Your task to perform on an android device: change the upload size in google photos Image 0: 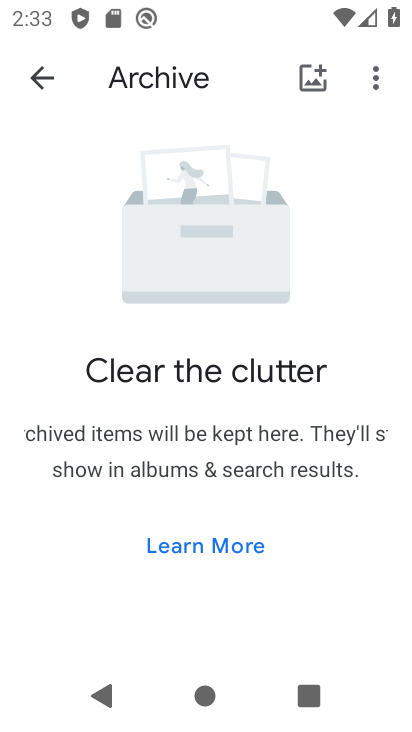
Step 0: press back button
Your task to perform on an android device: change the upload size in google photos Image 1: 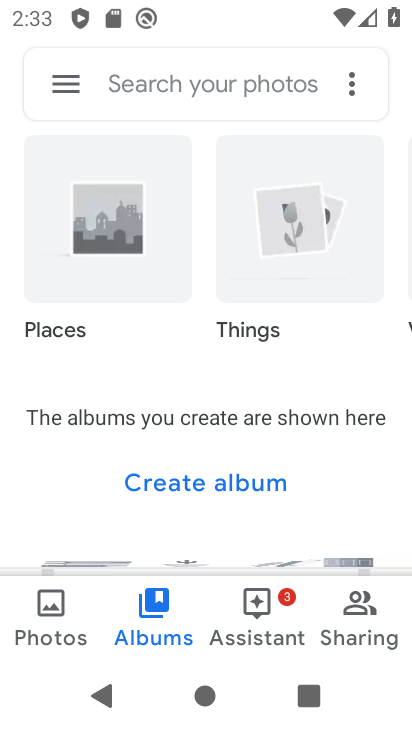
Step 1: press back button
Your task to perform on an android device: change the upload size in google photos Image 2: 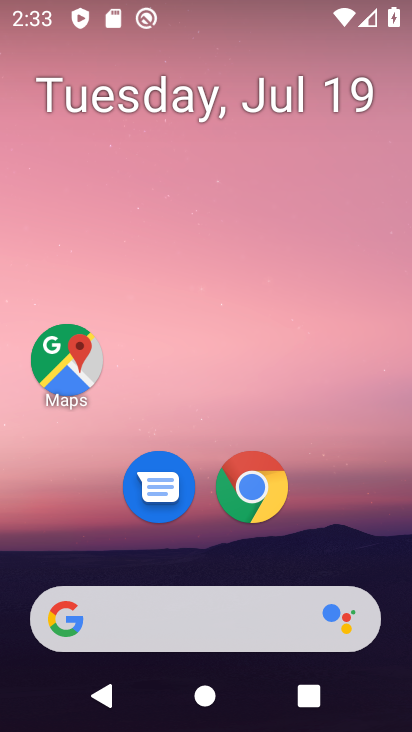
Step 2: drag from (158, 559) to (206, 31)
Your task to perform on an android device: change the upload size in google photos Image 3: 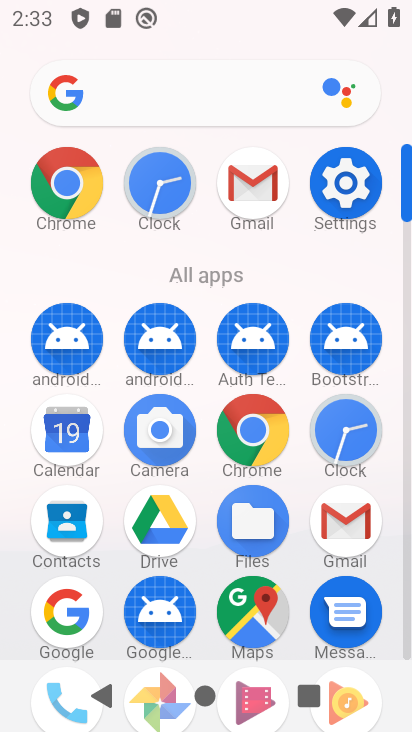
Step 3: drag from (169, 597) to (331, 100)
Your task to perform on an android device: change the upload size in google photos Image 4: 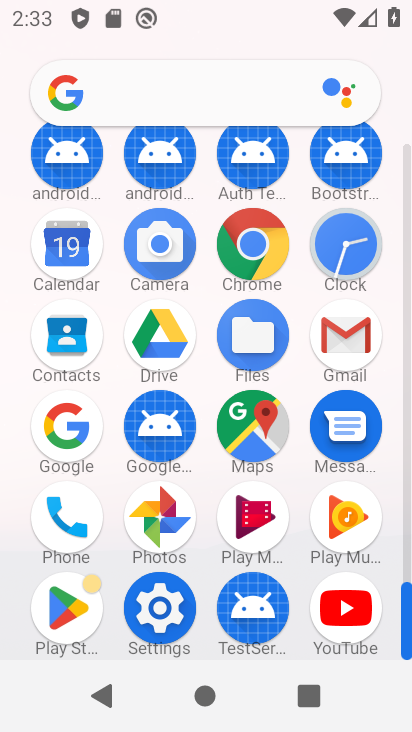
Step 4: click (142, 549)
Your task to perform on an android device: change the upload size in google photos Image 5: 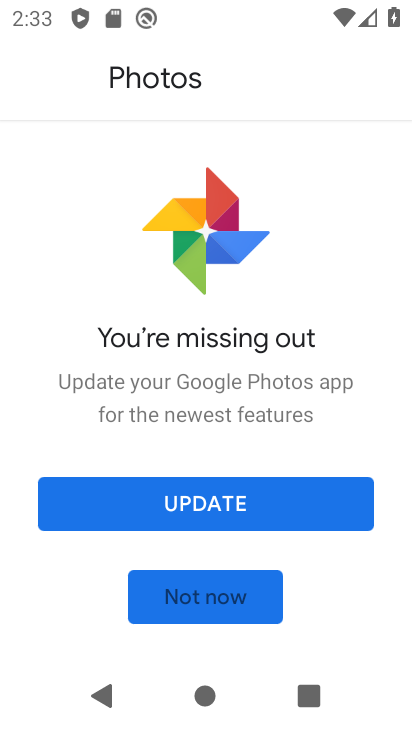
Step 5: click (186, 600)
Your task to perform on an android device: change the upload size in google photos Image 6: 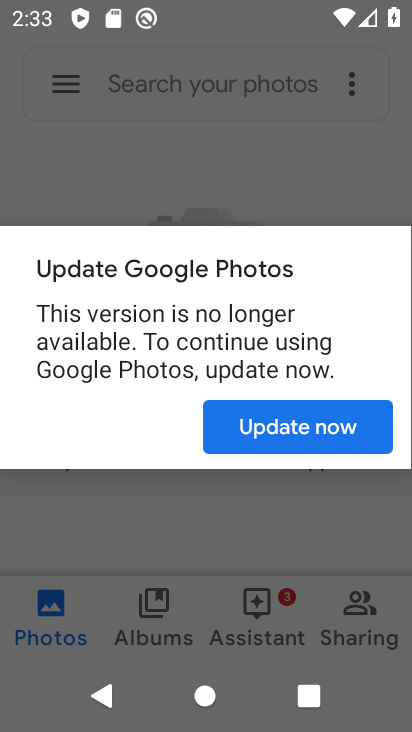
Step 6: click (250, 423)
Your task to perform on an android device: change the upload size in google photos Image 7: 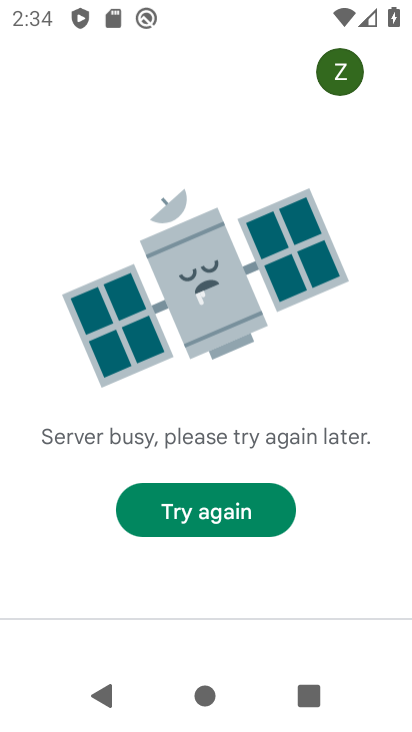
Step 7: click (215, 516)
Your task to perform on an android device: change the upload size in google photos Image 8: 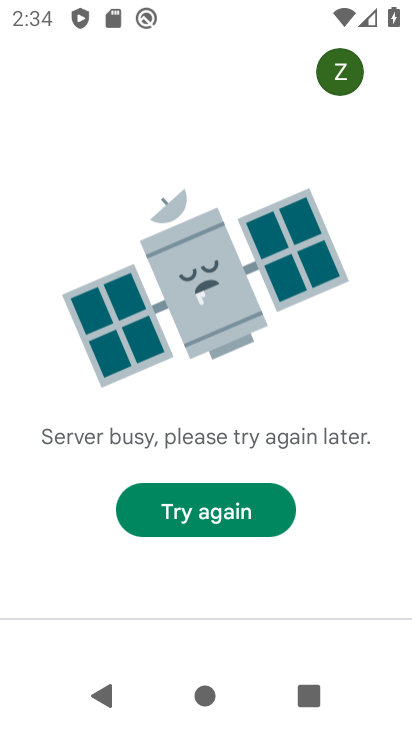
Step 8: press back button
Your task to perform on an android device: change the upload size in google photos Image 9: 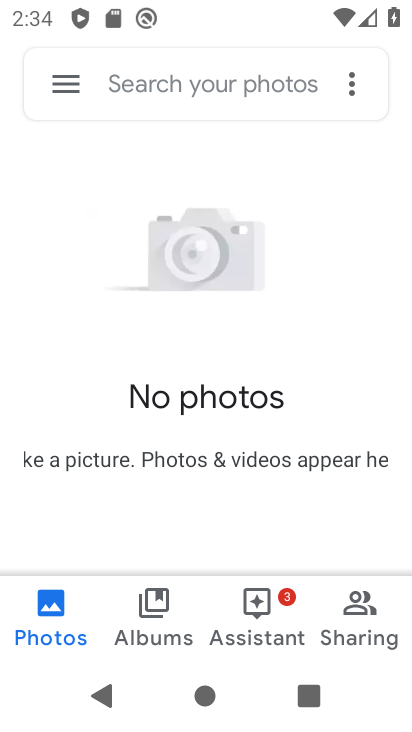
Step 9: click (85, 90)
Your task to perform on an android device: change the upload size in google photos Image 10: 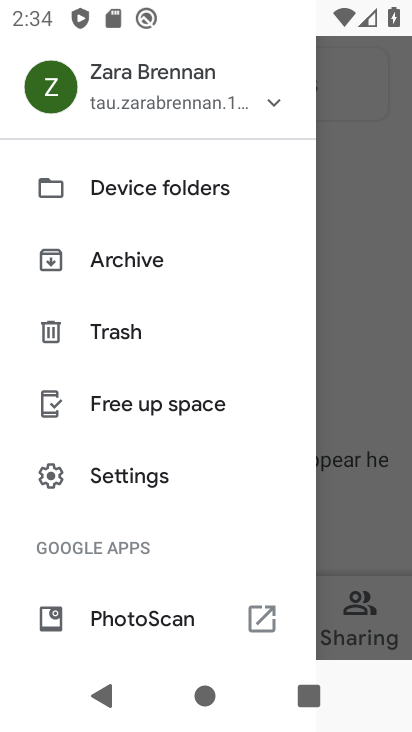
Step 10: click (130, 478)
Your task to perform on an android device: change the upload size in google photos Image 11: 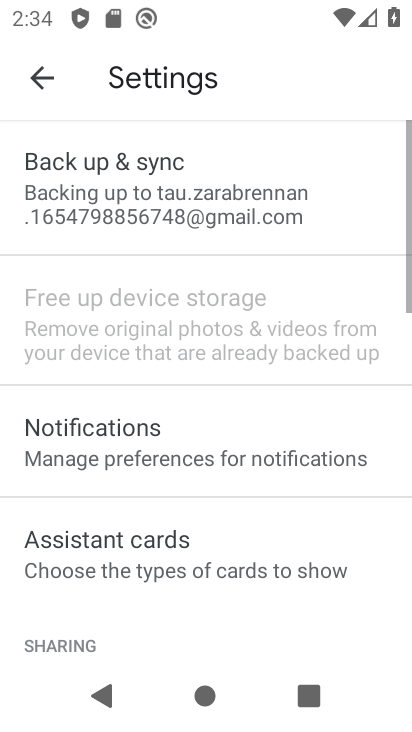
Step 11: click (164, 208)
Your task to perform on an android device: change the upload size in google photos Image 12: 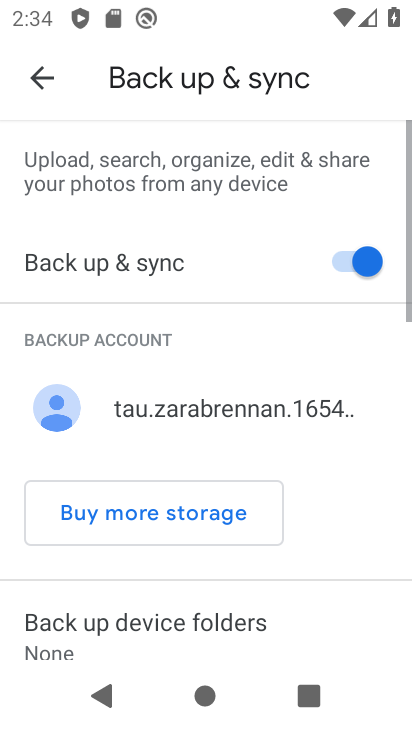
Step 12: drag from (183, 607) to (336, 142)
Your task to perform on an android device: change the upload size in google photos Image 13: 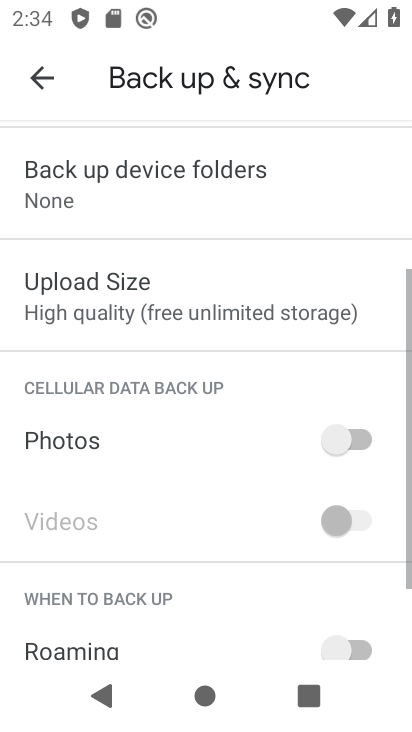
Step 13: click (188, 357)
Your task to perform on an android device: change the upload size in google photos Image 14: 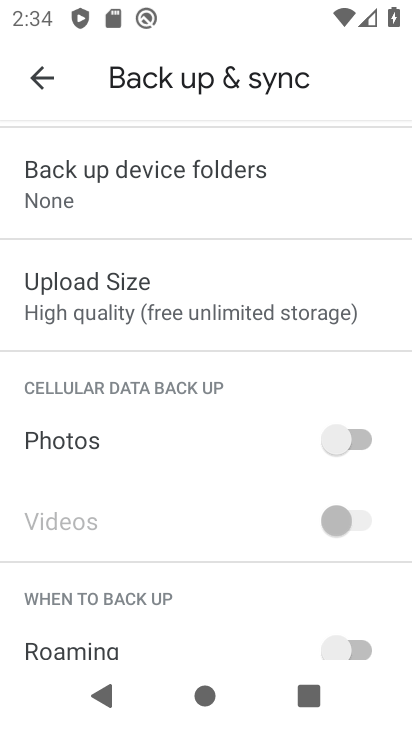
Step 14: click (159, 320)
Your task to perform on an android device: change the upload size in google photos Image 15: 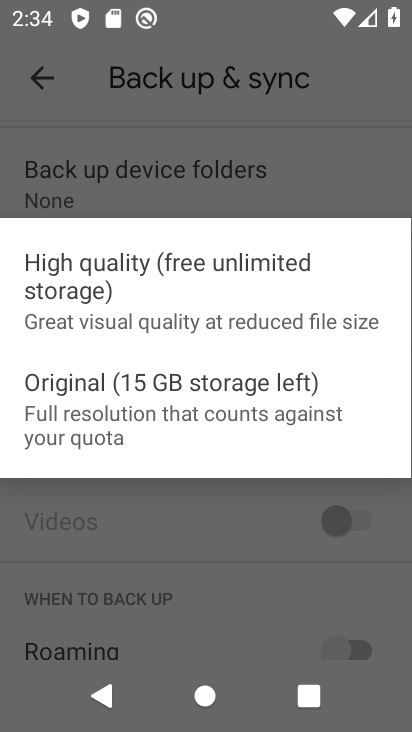
Step 15: click (118, 410)
Your task to perform on an android device: change the upload size in google photos Image 16: 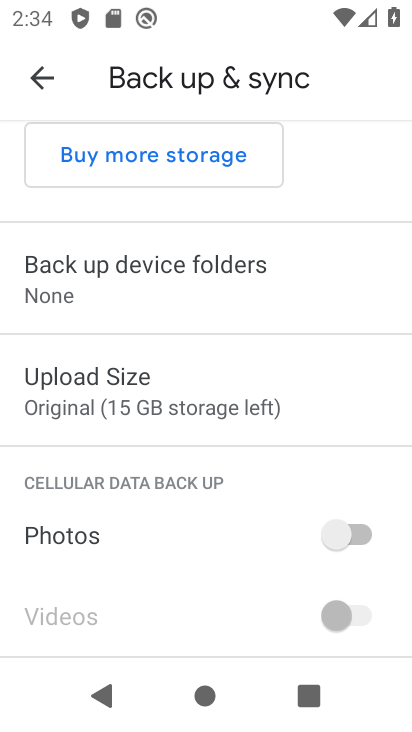
Step 16: task complete